Your task to perform on an android device: Go to CNN.com Image 0: 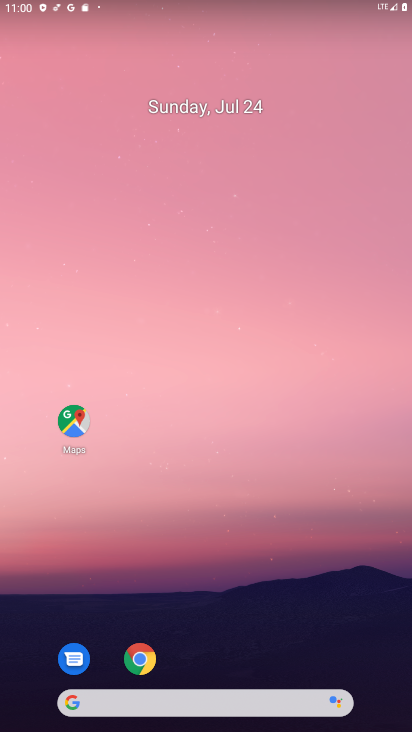
Step 0: click (140, 652)
Your task to perform on an android device: Go to CNN.com Image 1: 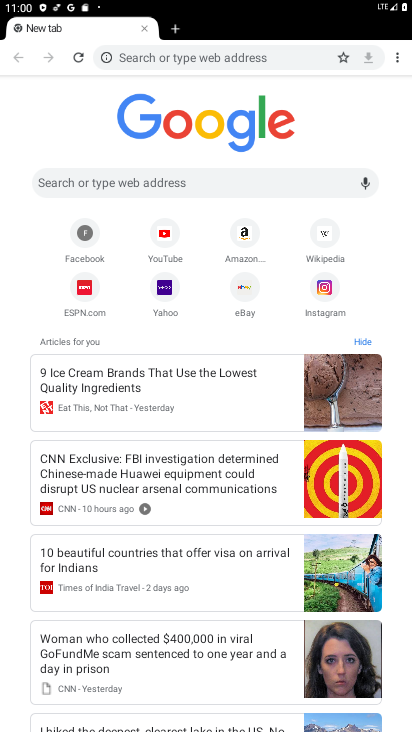
Step 1: click (152, 56)
Your task to perform on an android device: Go to CNN.com Image 2: 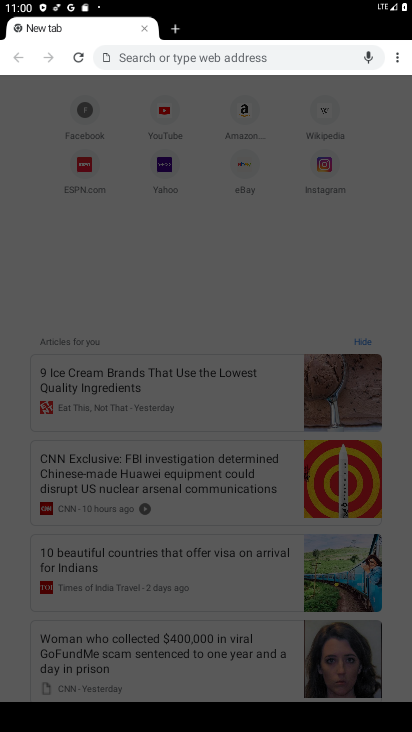
Step 2: type "cnn.com"
Your task to perform on an android device: Go to CNN.com Image 3: 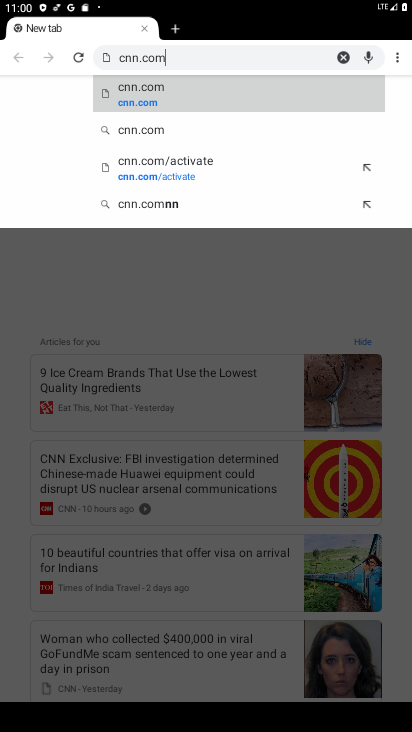
Step 3: click (150, 108)
Your task to perform on an android device: Go to CNN.com Image 4: 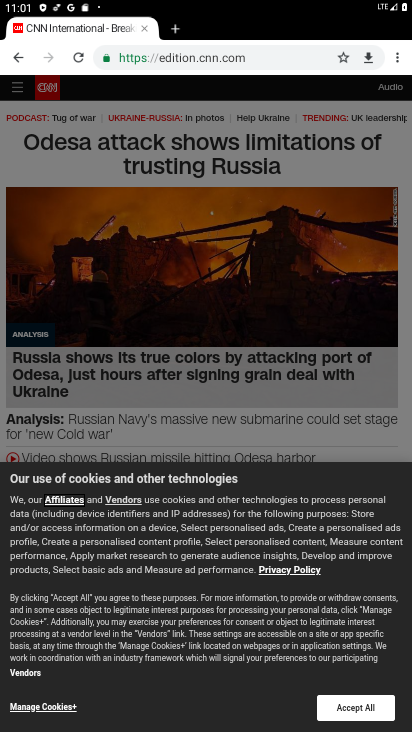
Step 4: task complete